Your task to perform on an android device: turn off notifications settings in the gmail app Image 0: 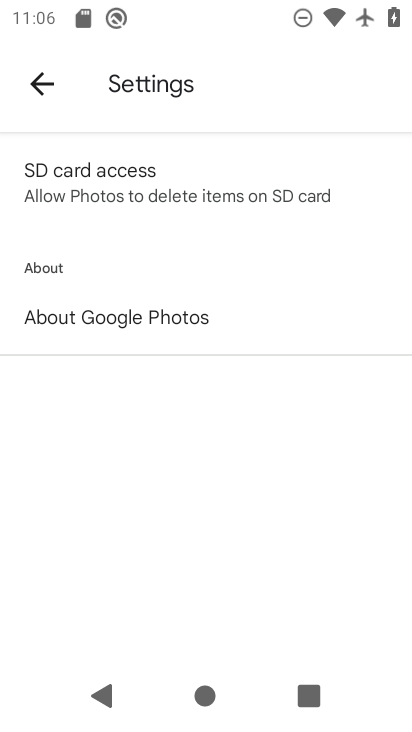
Step 0: press back button
Your task to perform on an android device: turn off notifications settings in the gmail app Image 1: 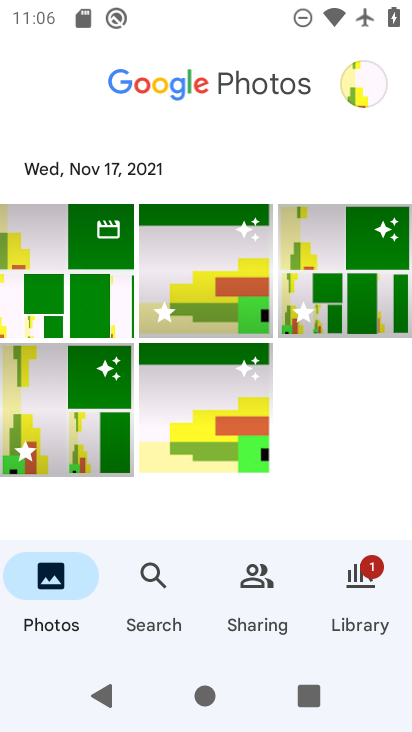
Step 1: press back button
Your task to perform on an android device: turn off notifications settings in the gmail app Image 2: 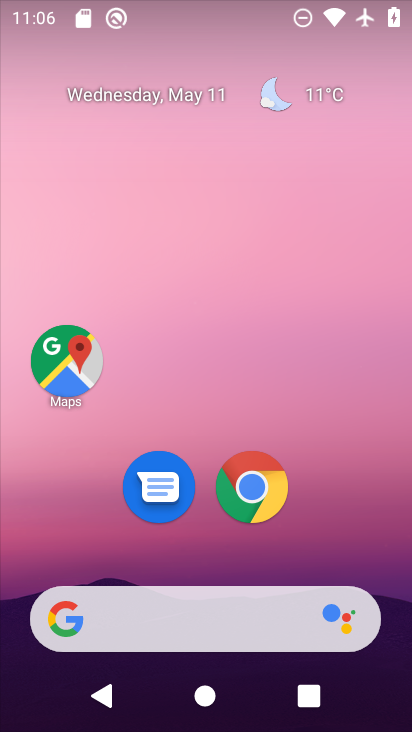
Step 2: drag from (335, 524) to (288, 26)
Your task to perform on an android device: turn off notifications settings in the gmail app Image 3: 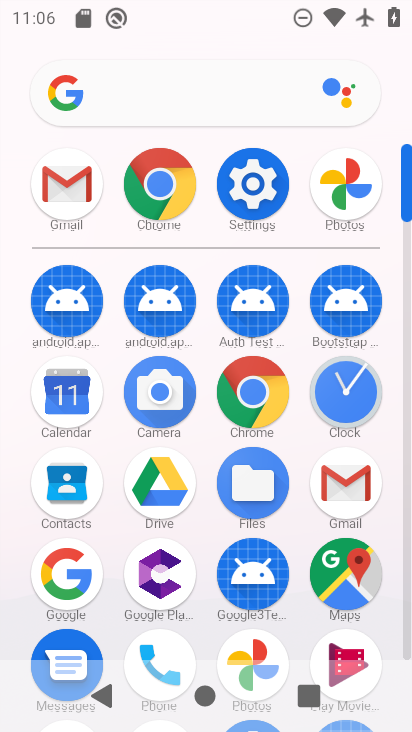
Step 3: drag from (5, 516) to (22, 244)
Your task to perform on an android device: turn off notifications settings in the gmail app Image 4: 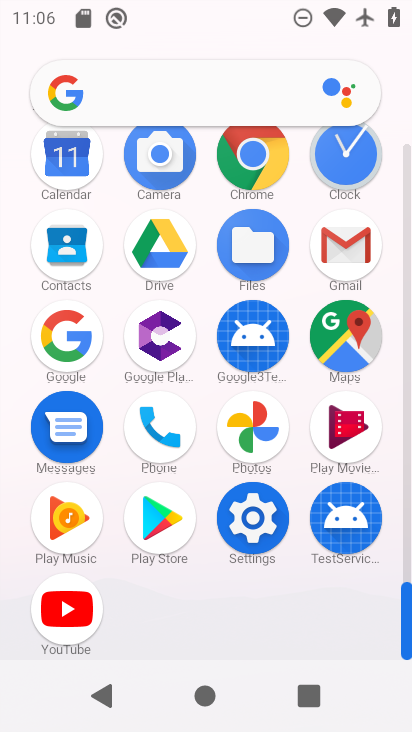
Step 4: click (341, 237)
Your task to perform on an android device: turn off notifications settings in the gmail app Image 5: 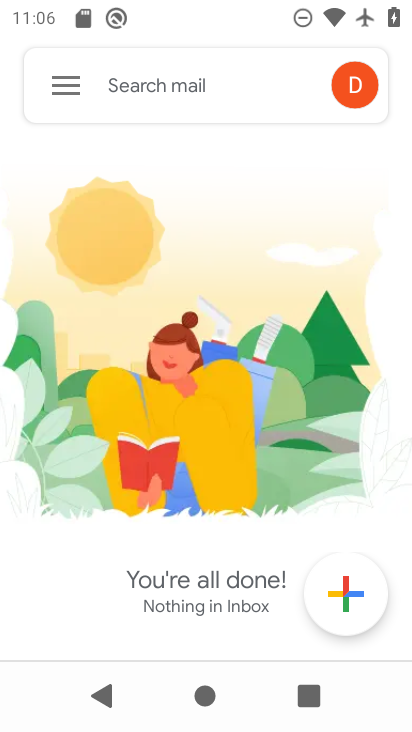
Step 5: click (55, 83)
Your task to perform on an android device: turn off notifications settings in the gmail app Image 6: 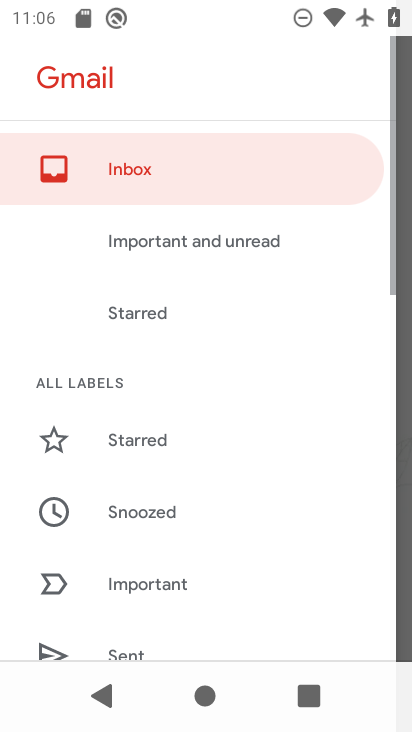
Step 6: drag from (198, 557) to (230, 133)
Your task to perform on an android device: turn off notifications settings in the gmail app Image 7: 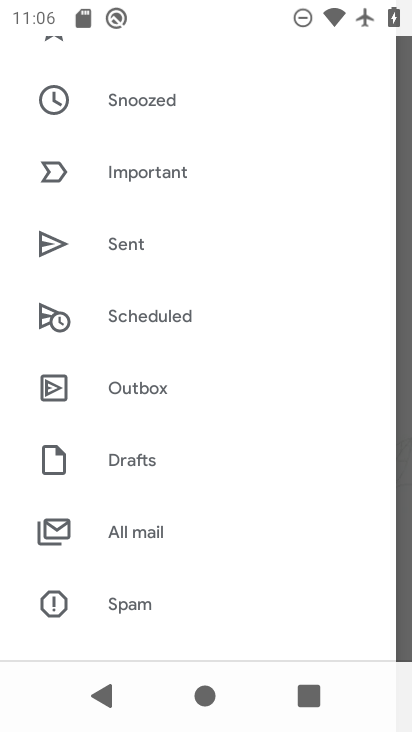
Step 7: drag from (225, 538) to (209, 102)
Your task to perform on an android device: turn off notifications settings in the gmail app Image 8: 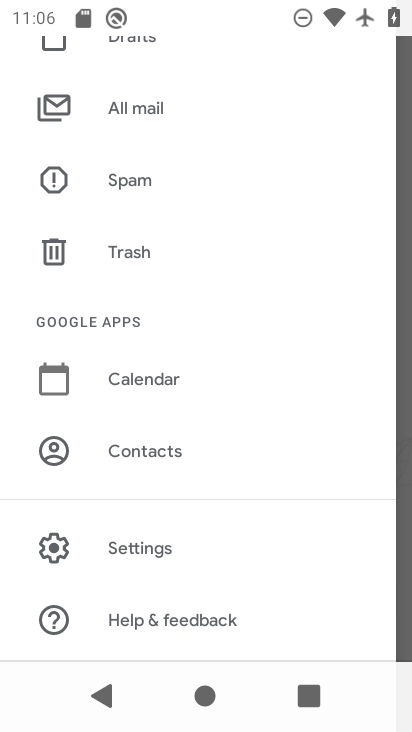
Step 8: click (167, 540)
Your task to perform on an android device: turn off notifications settings in the gmail app Image 9: 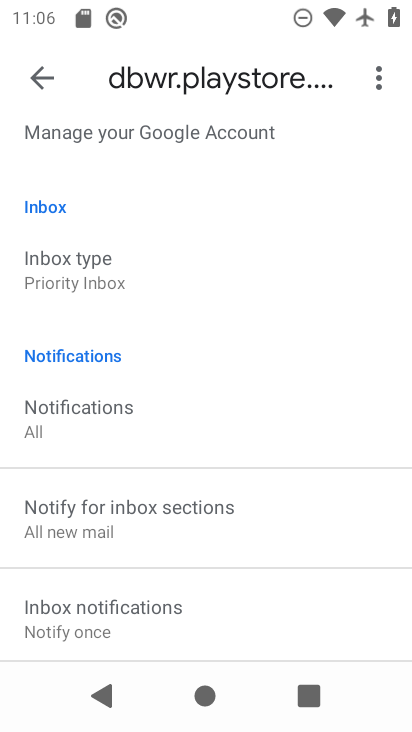
Step 9: drag from (210, 573) to (227, 217)
Your task to perform on an android device: turn off notifications settings in the gmail app Image 10: 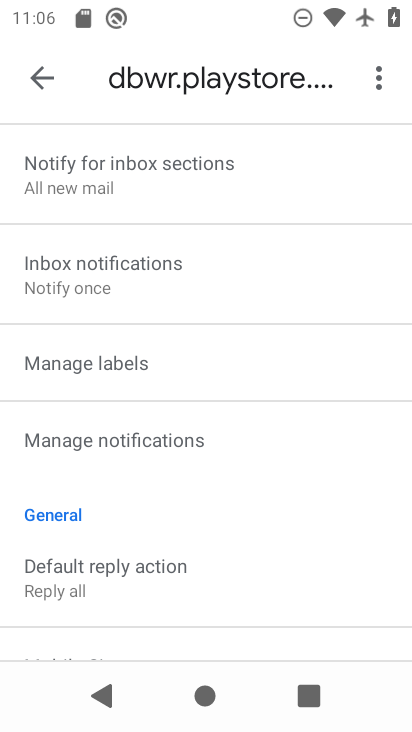
Step 10: click (121, 442)
Your task to perform on an android device: turn off notifications settings in the gmail app Image 11: 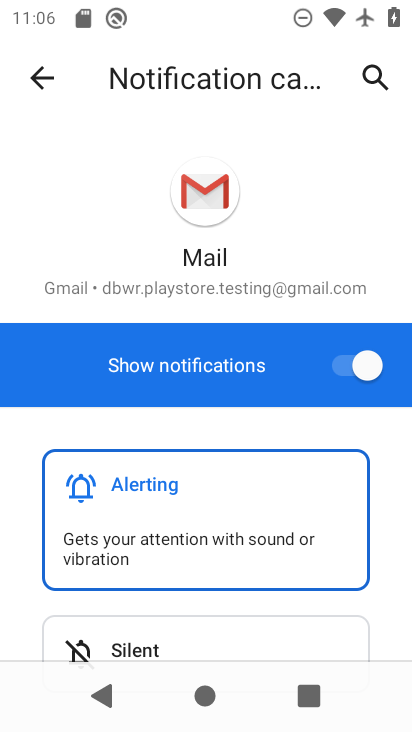
Step 11: click (351, 363)
Your task to perform on an android device: turn off notifications settings in the gmail app Image 12: 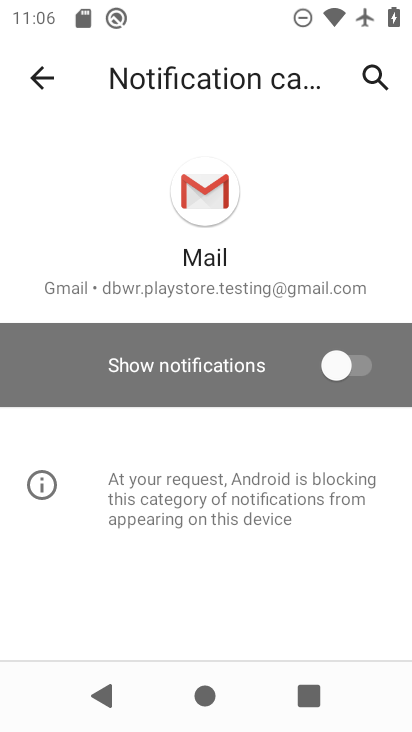
Step 12: task complete